Your task to perform on an android device: Toggle the flashlight Image 0: 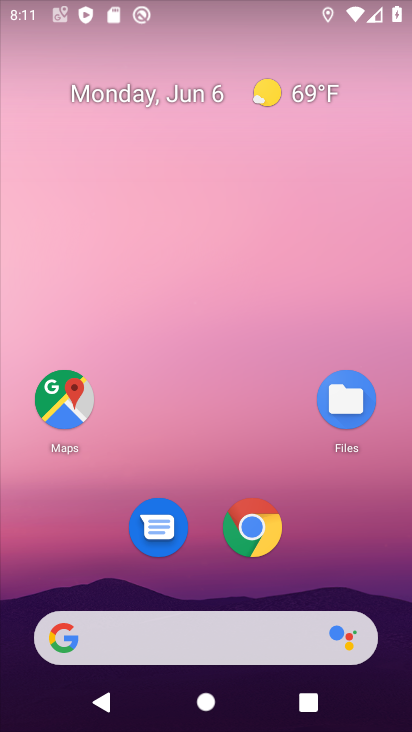
Step 0: drag from (187, 582) to (172, 88)
Your task to perform on an android device: Toggle the flashlight Image 1: 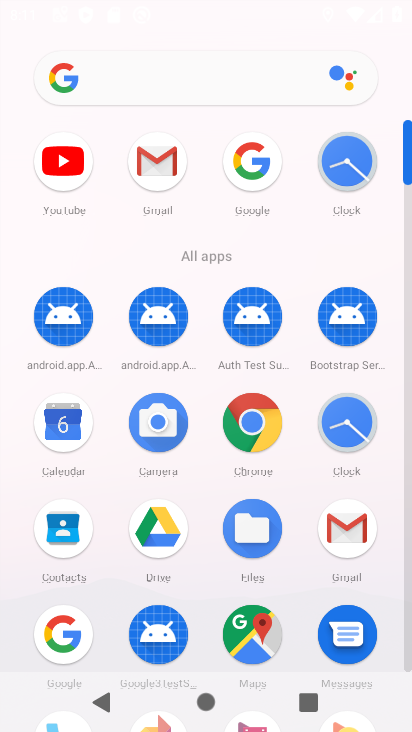
Step 1: drag from (202, 435) to (184, 3)
Your task to perform on an android device: Toggle the flashlight Image 2: 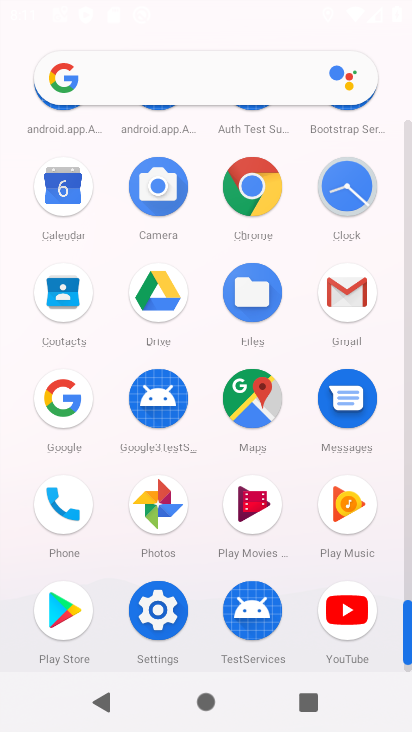
Step 2: click (161, 615)
Your task to perform on an android device: Toggle the flashlight Image 3: 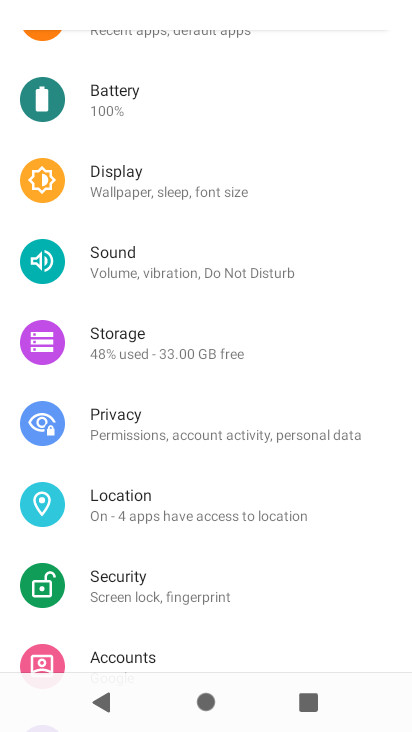
Step 3: drag from (196, 98) to (272, 555)
Your task to perform on an android device: Toggle the flashlight Image 4: 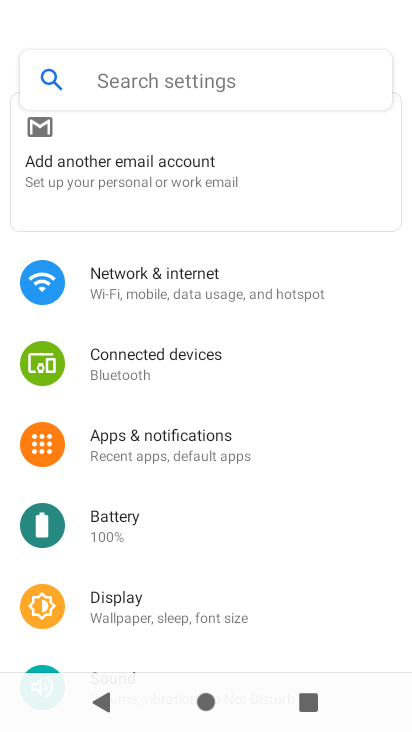
Step 4: click (175, 86)
Your task to perform on an android device: Toggle the flashlight Image 5: 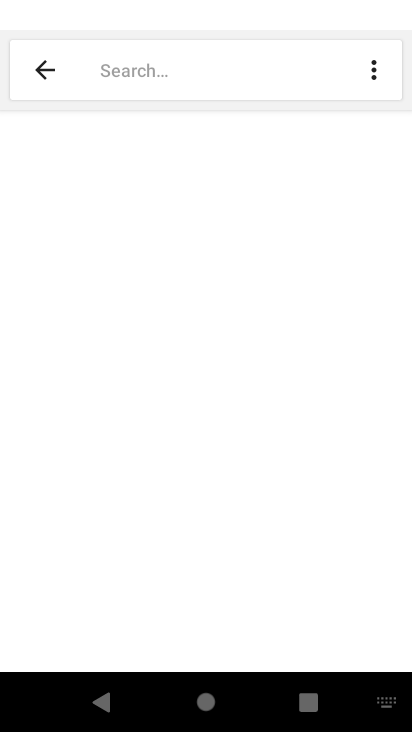
Step 5: type ""
Your task to perform on an android device: Toggle the flashlight Image 6: 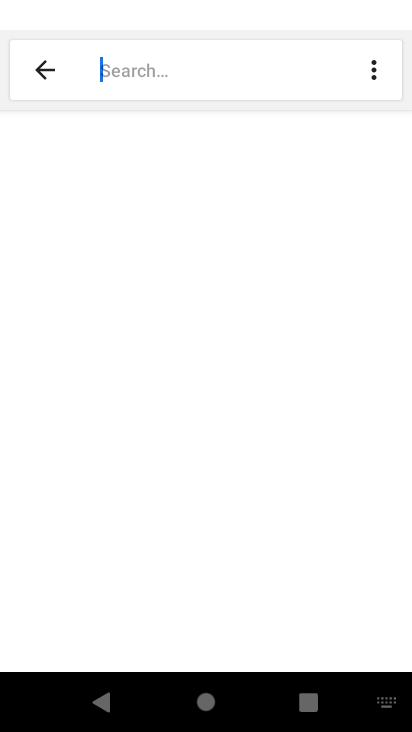
Step 6: type "flash"
Your task to perform on an android device: Toggle the flashlight Image 7: 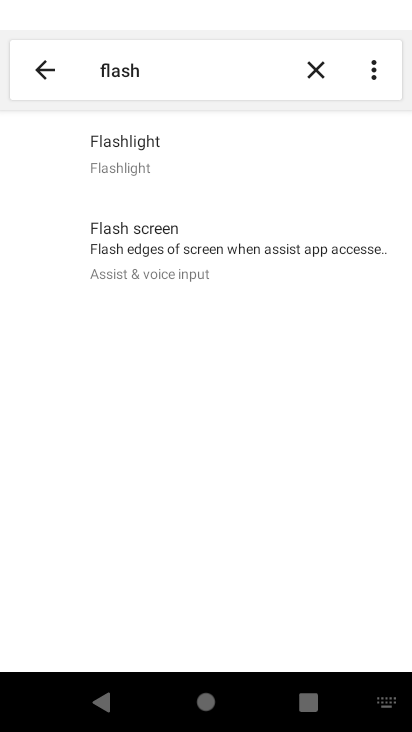
Step 7: task complete